Your task to perform on an android device: install app "Speedtest by Ookla" Image 0: 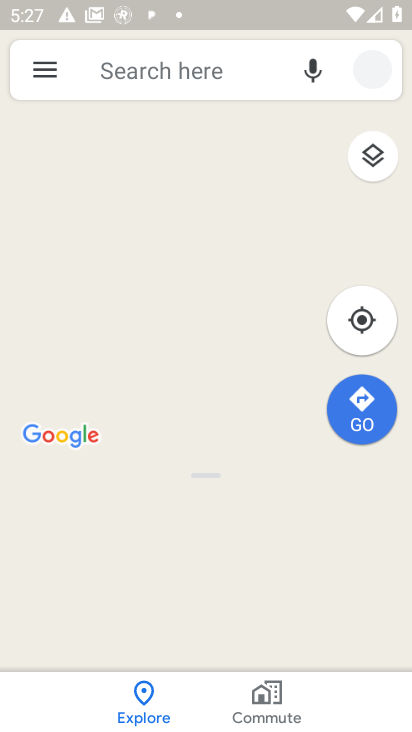
Step 0: press home button
Your task to perform on an android device: install app "Speedtest by Ookla" Image 1: 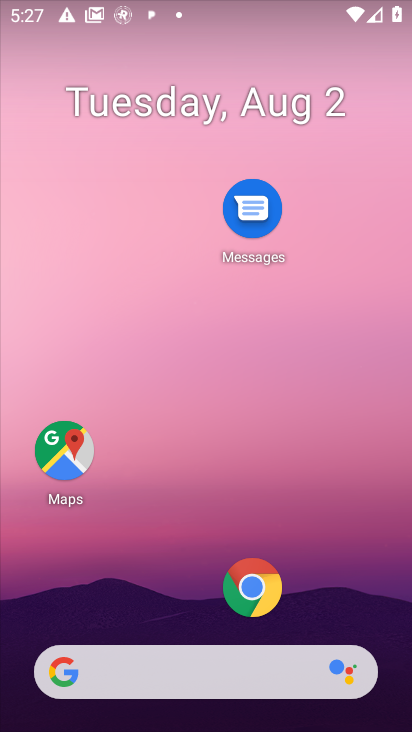
Step 1: drag from (154, 569) to (125, 219)
Your task to perform on an android device: install app "Speedtest by Ookla" Image 2: 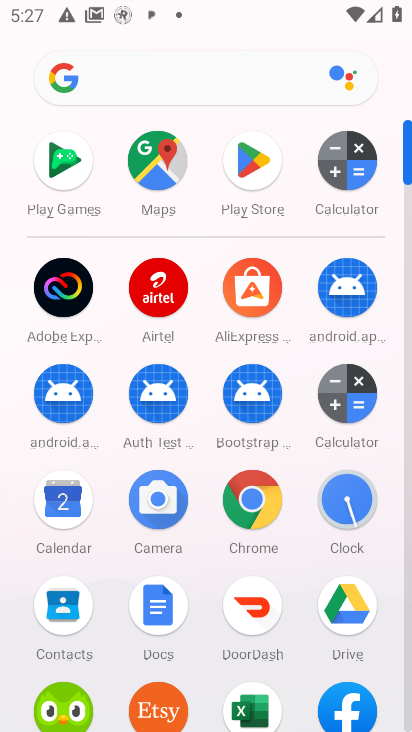
Step 2: click (235, 167)
Your task to perform on an android device: install app "Speedtest by Ookla" Image 3: 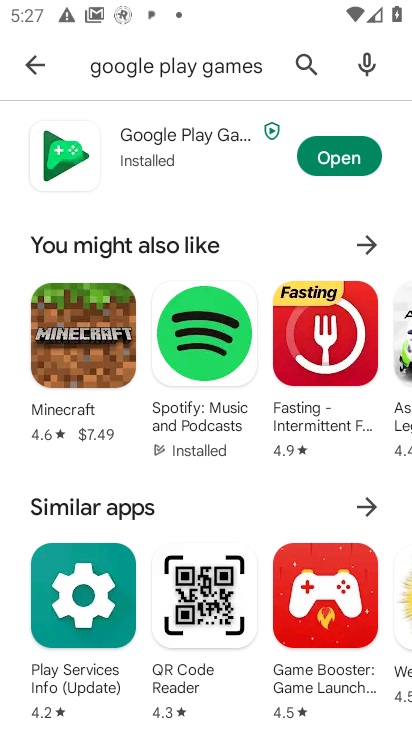
Step 3: click (301, 79)
Your task to perform on an android device: install app "Speedtest by Ookla" Image 4: 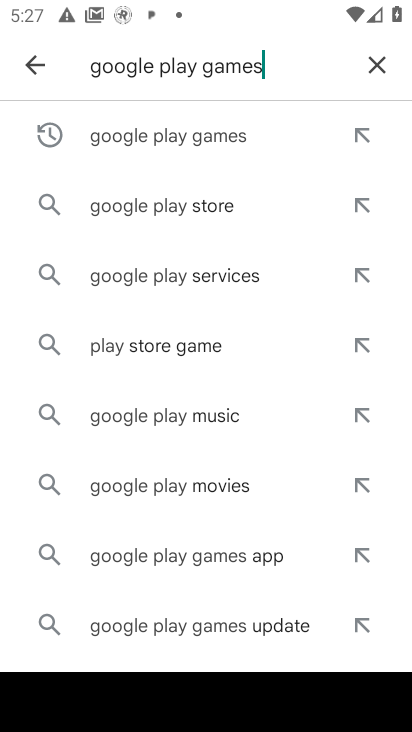
Step 4: click (365, 73)
Your task to perform on an android device: install app "Speedtest by Ookla" Image 5: 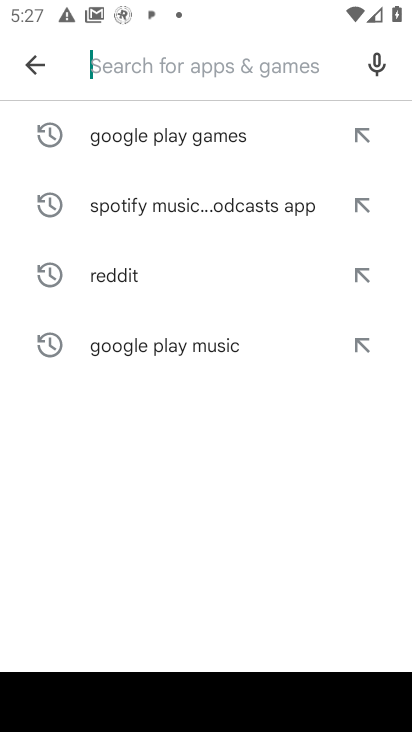
Step 5: type "Speedtest by Ookla"
Your task to perform on an android device: install app "Speedtest by Ookla" Image 6: 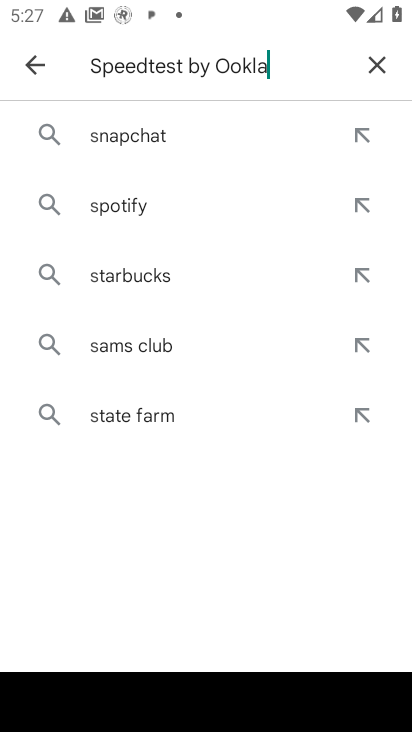
Step 6: type ""
Your task to perform on an android device: install app "Speedtest by Ookla" Image 7: 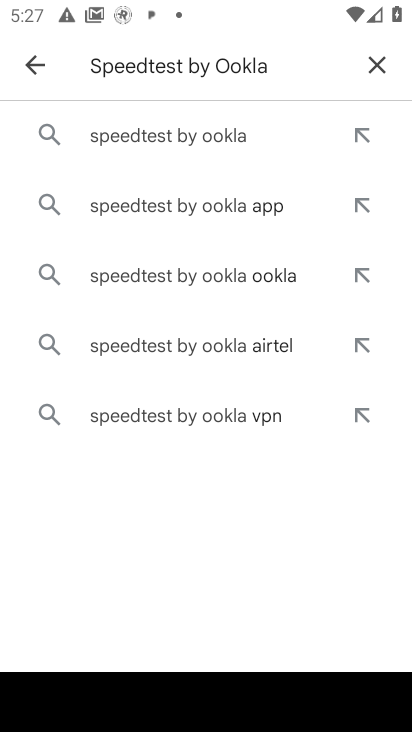
Step 7: click (169, 143)
Your task to perform on an android device: install app "Speedtest by Ookla" Image 8: 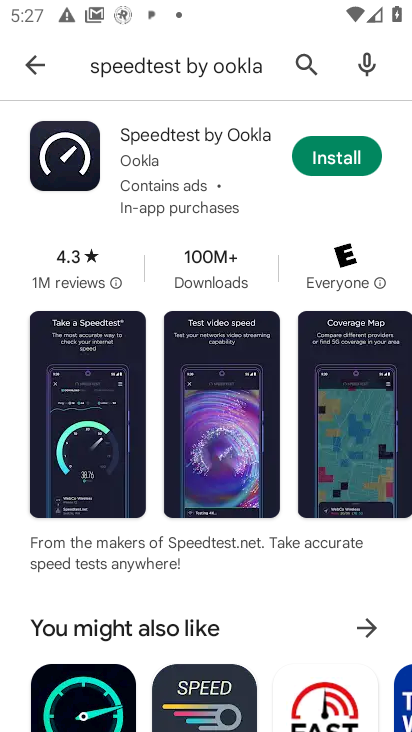
Step 8: click (364, 154)
Your task to perform on an android device: install app "Speedtest by Ookla" Image 9: 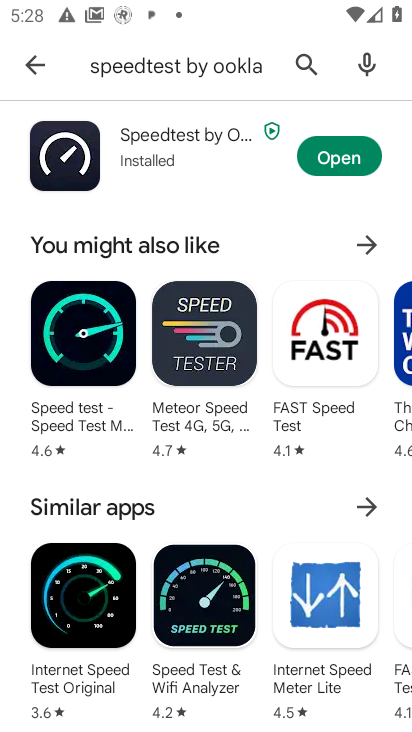
Step 9: task complete